Your task to perform on an android device: turn smart compose on in the gmail app Image 0: 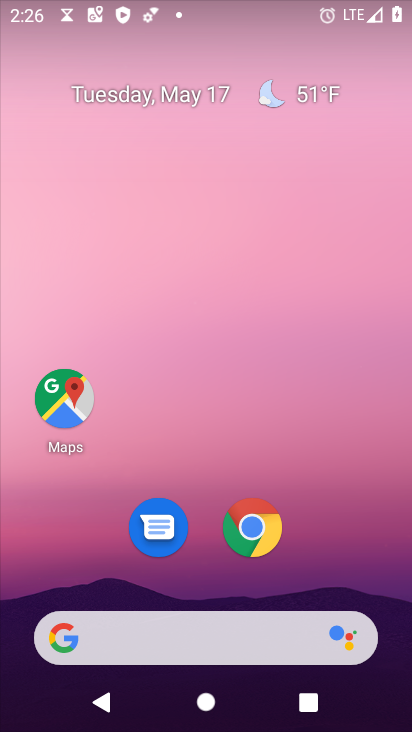
Step 0: drag from (330, 569) to (205, 174)
Your task to perform on an android device: turn smart compose on in the gmail app Image 1: 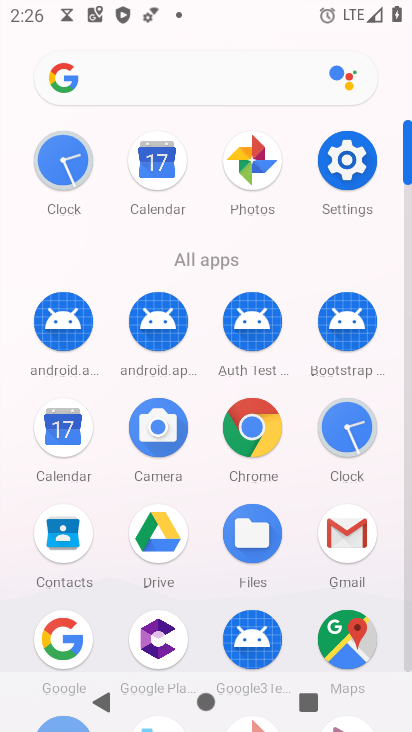
Step 1: drag from (191, 439) to (201, 268)
Your task to perform on an android device: turn smart compose on in the gmail app Image 2: 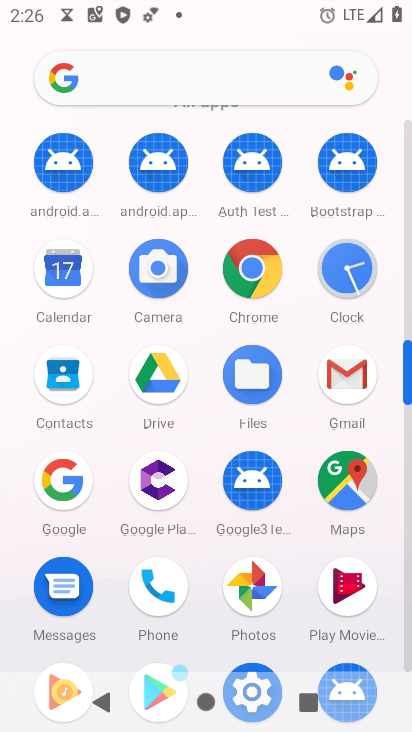
Step 2: click (344, 374)
Your task to perform on an android device: turn smart compose on in the gmail app Image 3: 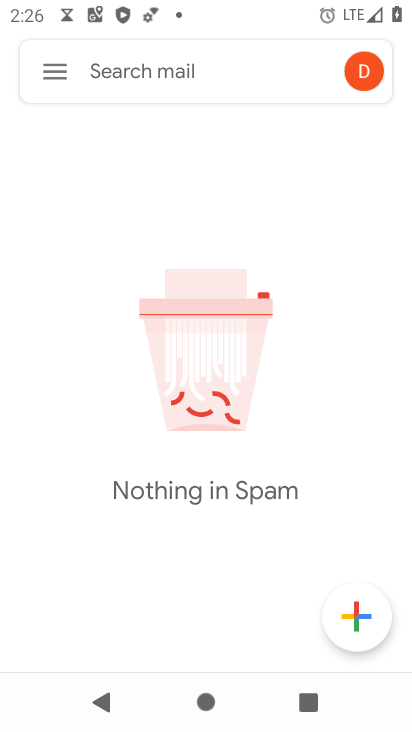
Step 3: click (51, 70)
Your task to perform on an android device: turn smart compose on in the gmail app Image 4: 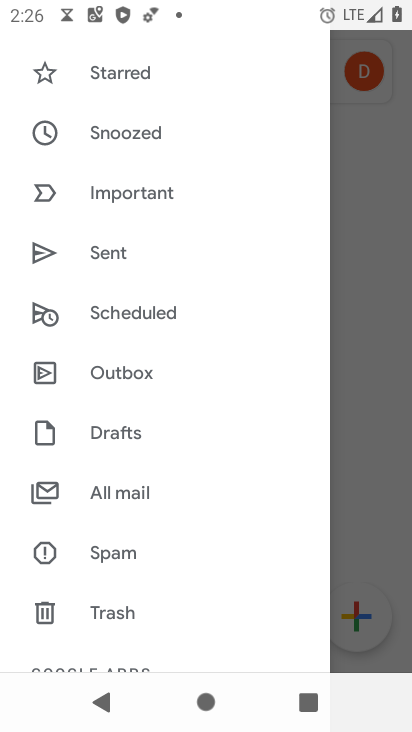
Step 4: drag from (130, 461) to (150, 387)
Your task to perform on an android device: turn smart compose on in the gmail app Image 5: 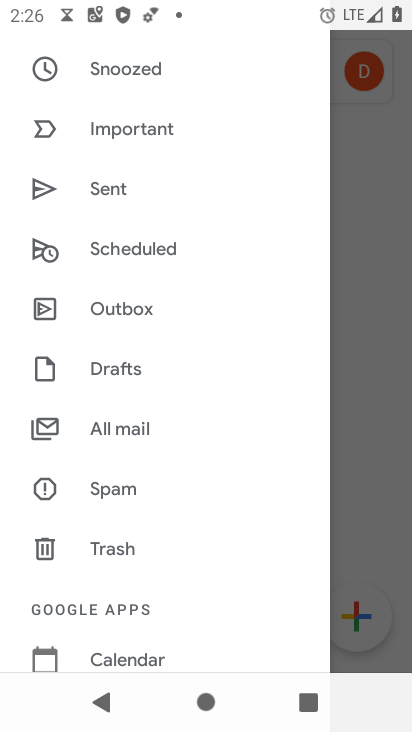
Step 5: drag from (115, 461) to (146, 391)
Your task to perform on an android device: turn smart compose on in the gmail app Image 6: 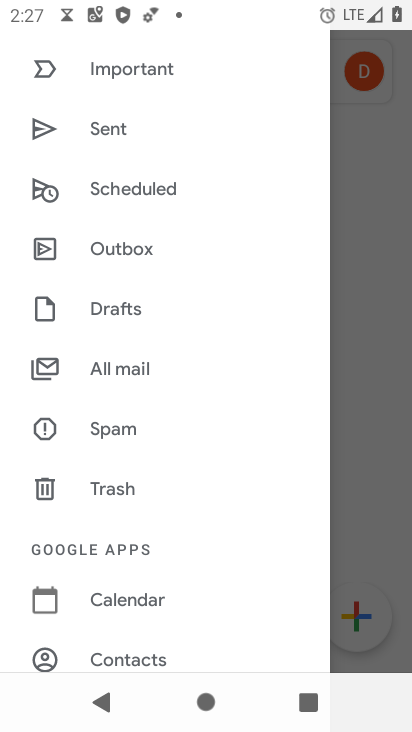
Step 6: drag from (107, 514) to (164, 420)
Your task to perform on an android device: turn smart compose on in the gmail app Image 7: 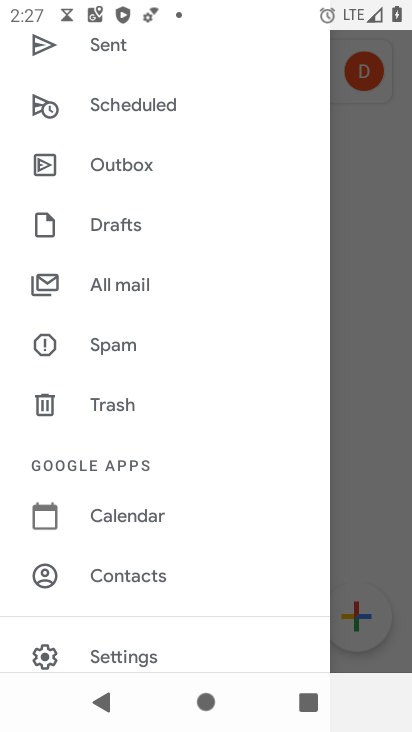
Step 7: drag from (101, 495) to (153, 407)
Your task to perform on an android device: turn smart compose on in the gmail app Image 8: 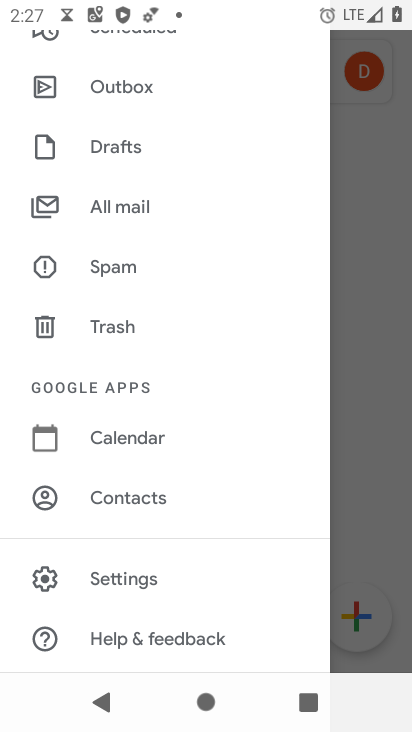
Step 8: click (115, 577)
Your task to perform on an android device: turn smart compose on in the gmail app Image 9: 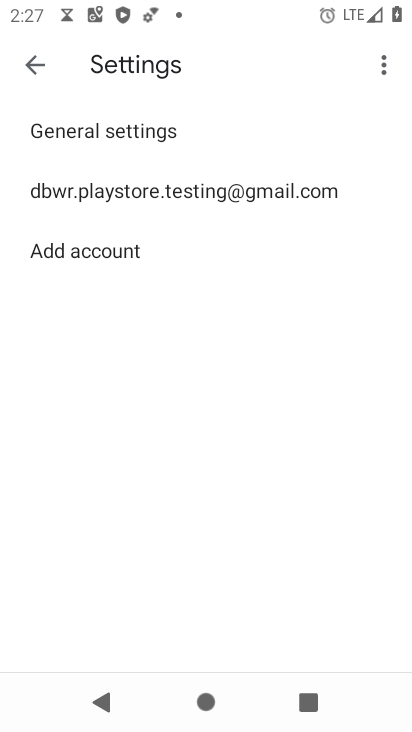
Step 9: click (172, 195)
Your task to perform on an android device: turn smart compose on in the gmail app Image 10: 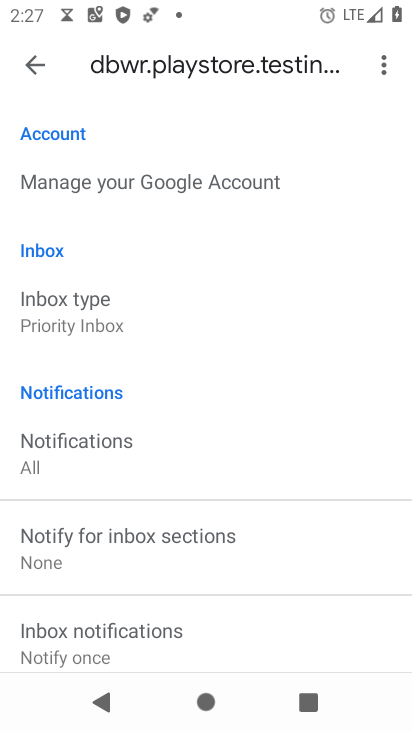
Step 10: task complete